Your task to perform on an android device: Go to Yahoo.com Image 0: 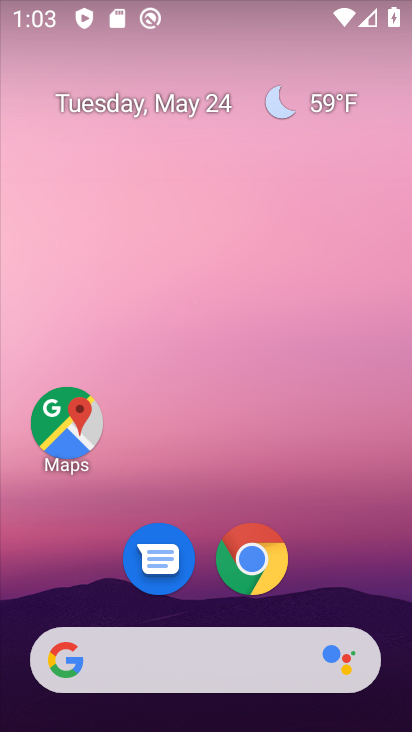
Step 0: drag from (405, 619) to (300, 104)
Your task to perform on an android device: Go to Yahoo.com Image 1: 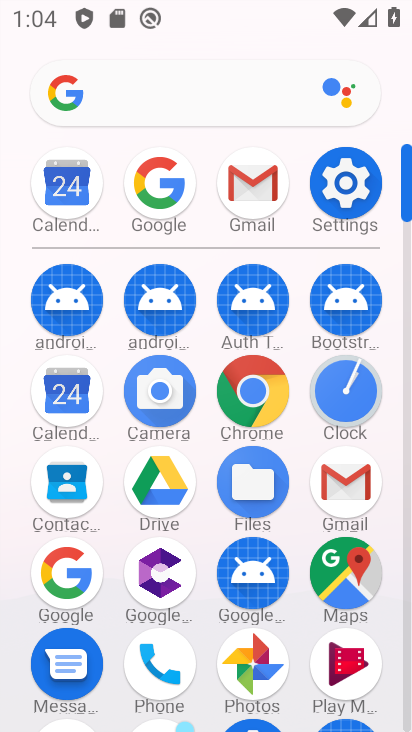
Step 1: click (262, 420)
Your task to perform on an android device: Go to Yahoo.com Image 2: 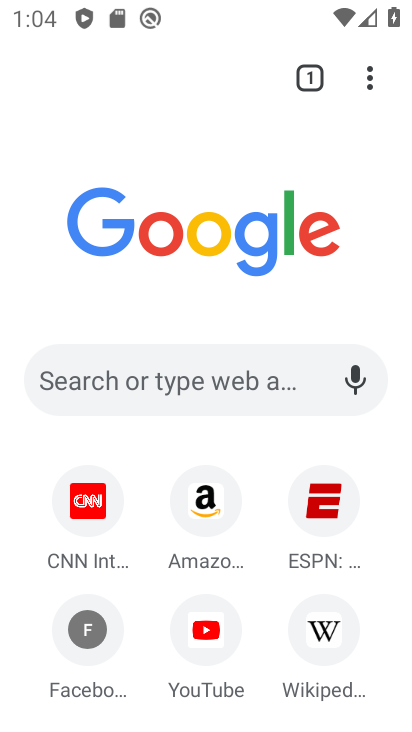
Step 2: drag from (139, 566) to (146, 324)
Your task to perform on an android device: Go to Yahoo.com Image 3: 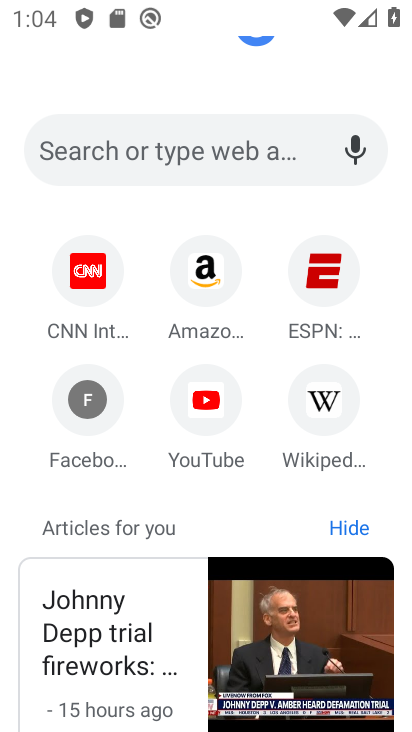
Step 3: click (163, 163)
Your task to perform on an android device: Go to Yahoo.com Image 4: 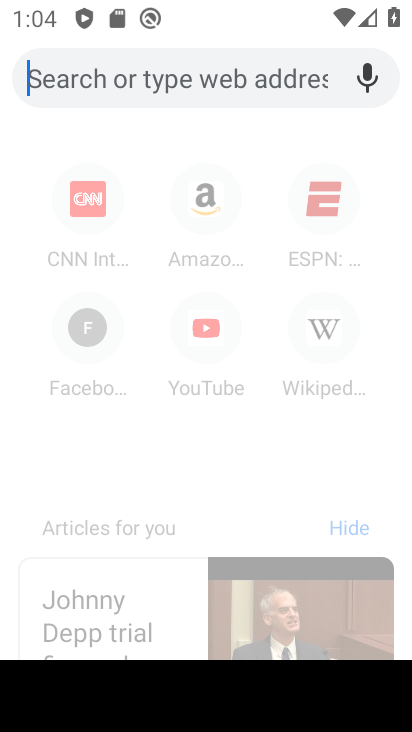
Step 4: type "yahoo.com"
Your task to perform on an android device: Go to Yahoo.com Image 5: 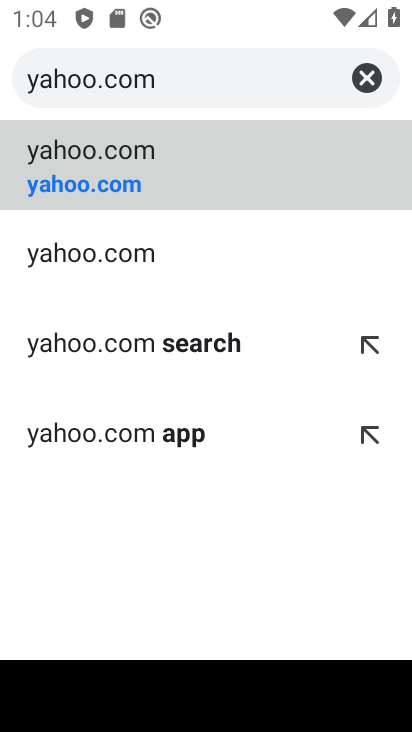
Step 5: click (260, 185)
Your task to perform on an android device: Go to Yahoo.com Image 6: 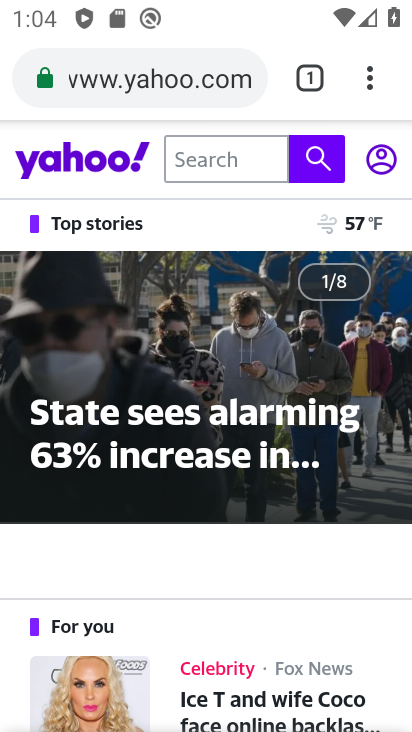
Step 6: task complete